Your task to perform on an android device: find photos in the google photos app Image 0: 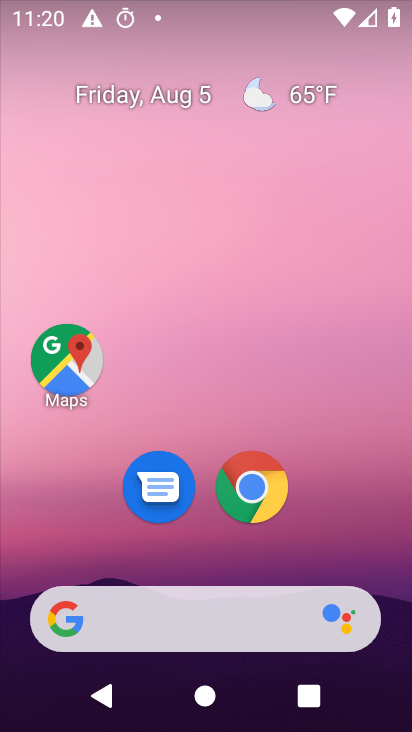
Step 0: drag from (199, 559) to (198, 71)
Your task to perform on an android device: find photos in the google photos app Image 1: 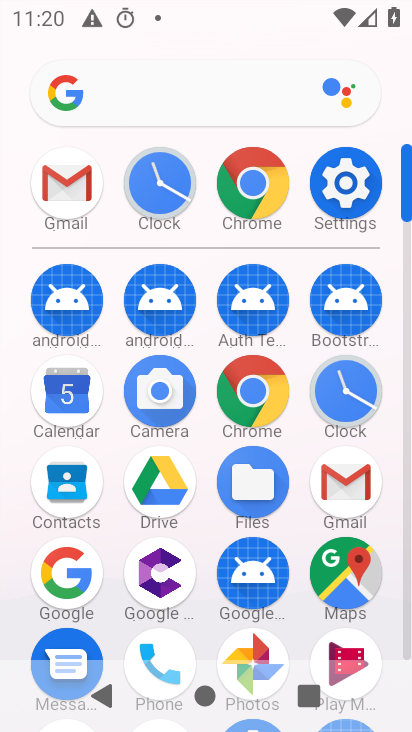
Step 1: click (260, 648)
Your task to perform on an android device: find photos in the google photos app Image 2: 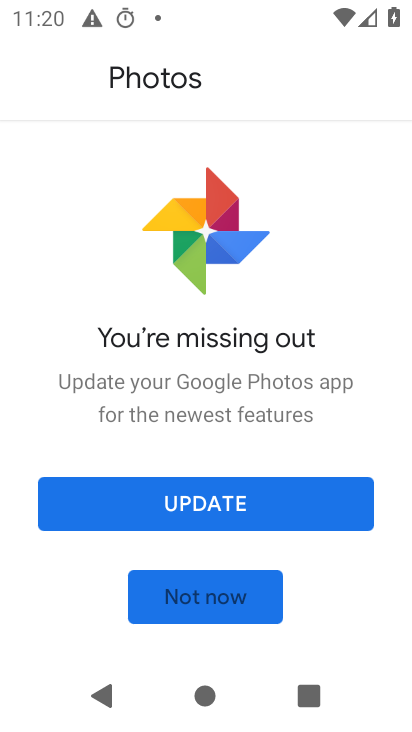
Step 2: click (221, 602)
Your task to perform on an android device: find photos in the google photos app Image 3: 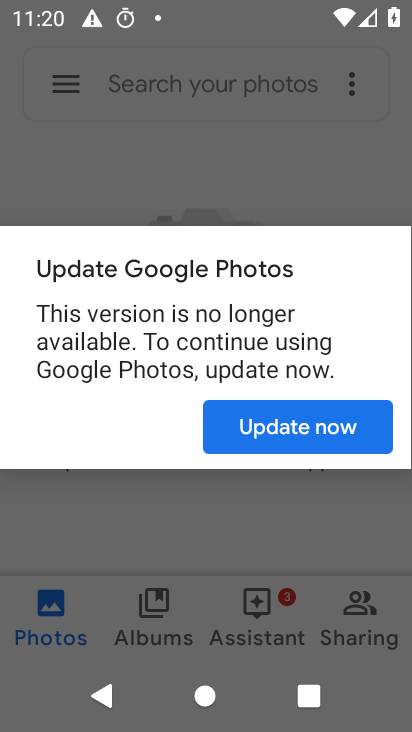
Step 3: click (261, 439)
Your task to perform on an android device: find photos in the google photos app Image 4: 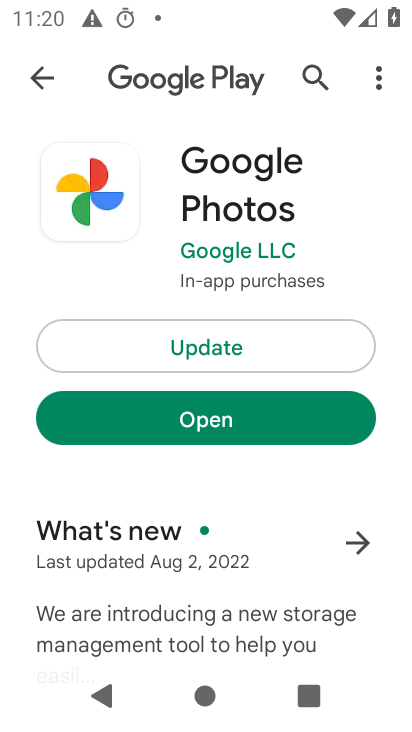
Step 4: click (215, 419)
Your task to perform on an android device: find photos in the google photos app Image 5: 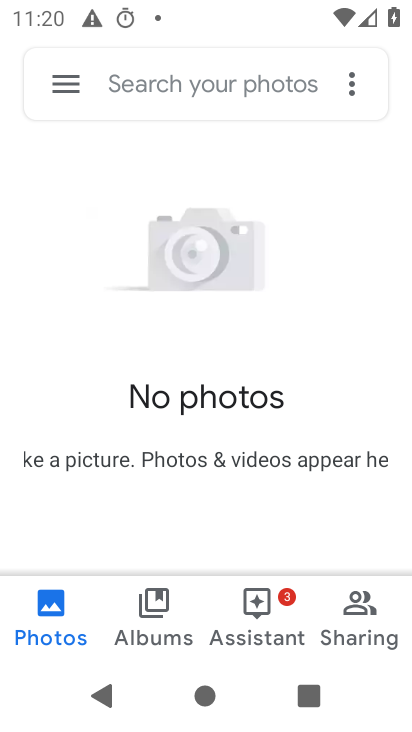
Step 5: click (50, 626)
Your task to perform on an android device: find photos in the google photos app Image 6: 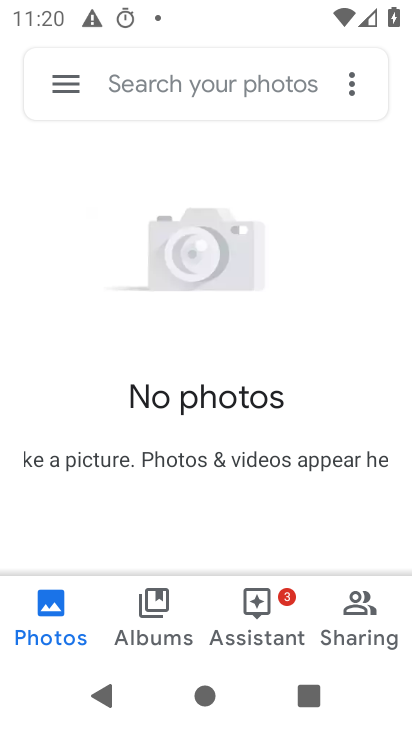
Step 6: task complete